Your task to perform on an android device: Go to network settings Image 0: 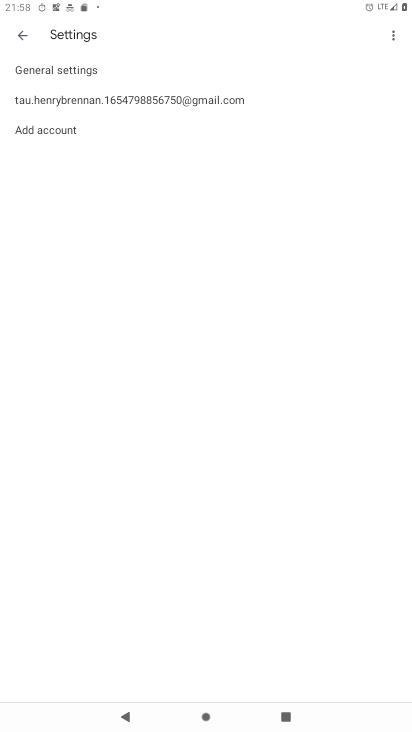
Step 0: click (17, 35)
Your task to perform on an android device: Go to network settings Image 1: 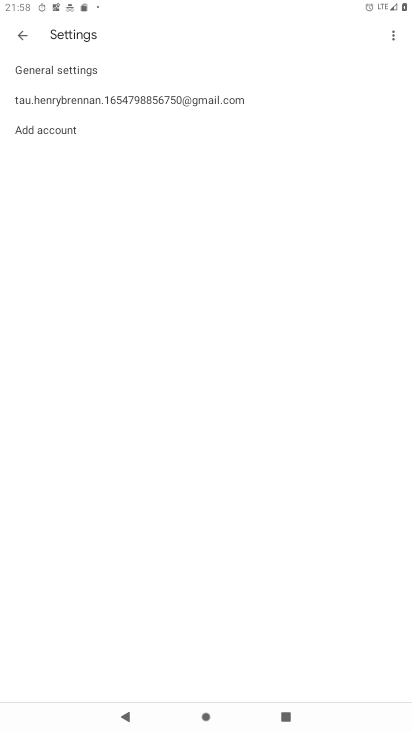
Step 1: click (16, 35)
Your task to perform on an android device: Go to network settings Image 2: 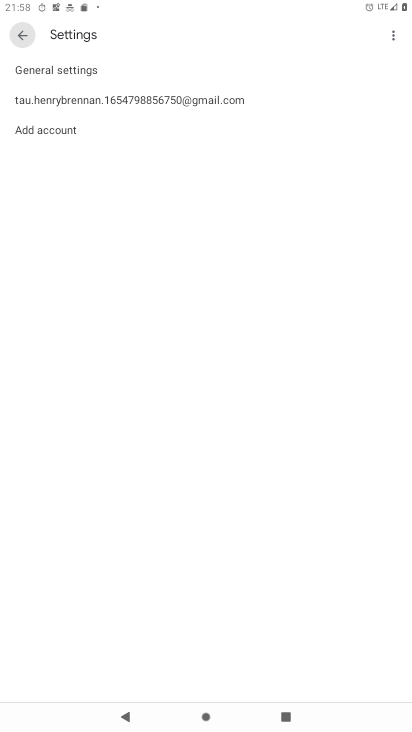
Step 2: click (17, 35)
Your task to perform on an android device: Go to network settings Image 3: 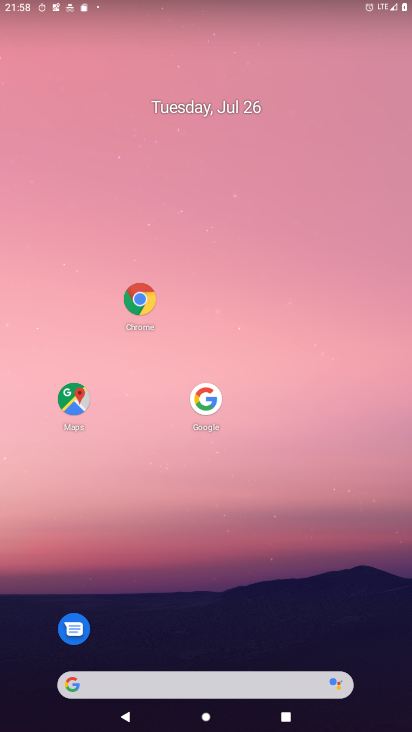
Step 3: click (152, 73)
Your task to perform on an android device: Go to network settings Image 4: 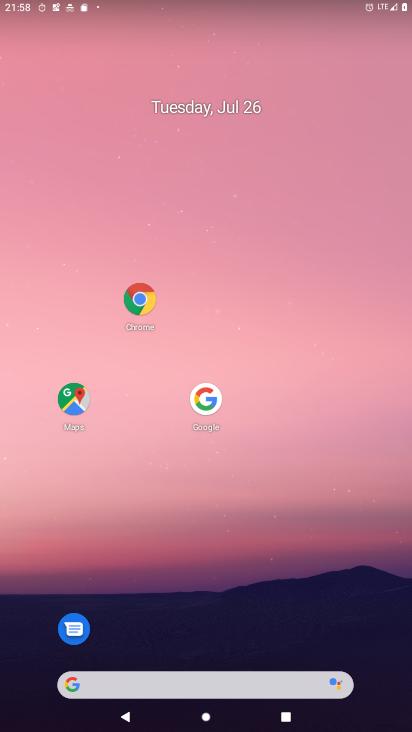
Step 4: drag from (209, 437) to (249, 58)
Your task to perform on an android device: Go to network settings Image 5: 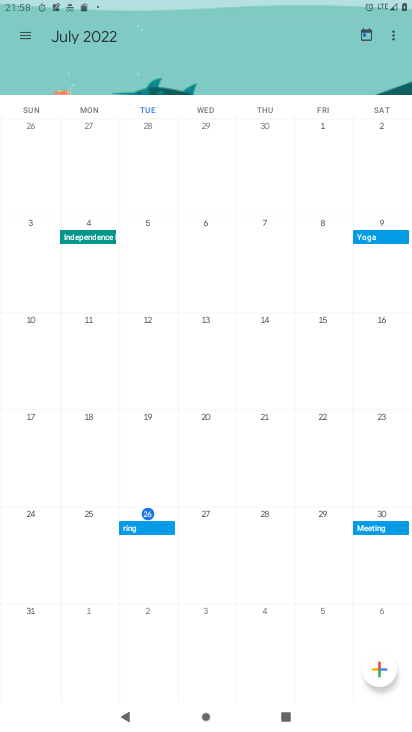
Step 5: click (261, 108)
Your task to perform on an android device: Go to network settings Image 6: 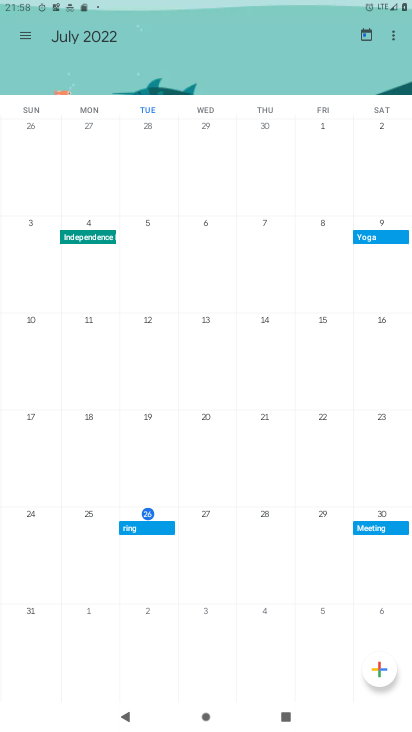
Step 6: press back button
Your task to perform on an android device: Go to network settings Image 7: 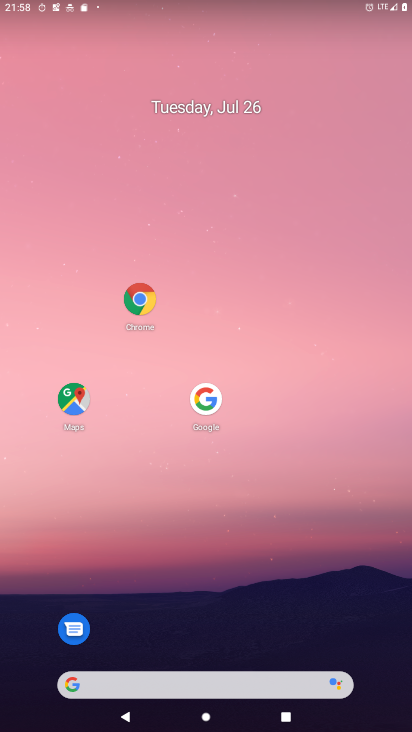
Step 7: drag from (215, 596) to (205, 261)
Your task to perform on an android device: Go to network settings Image 8: 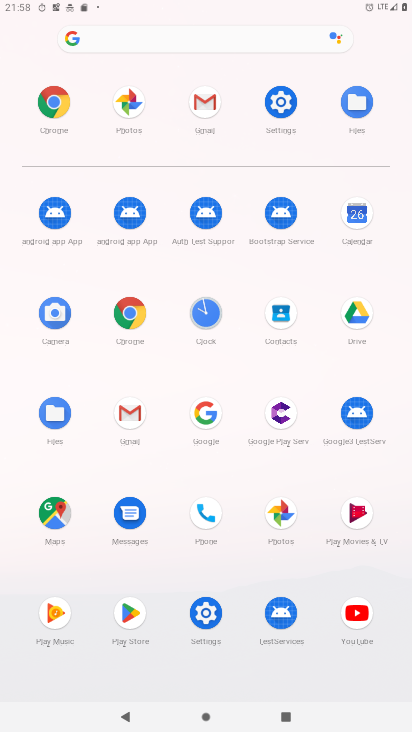
Step 8: click (145, 187)
Your task to perform on an android device: Go to network settings Image 9: 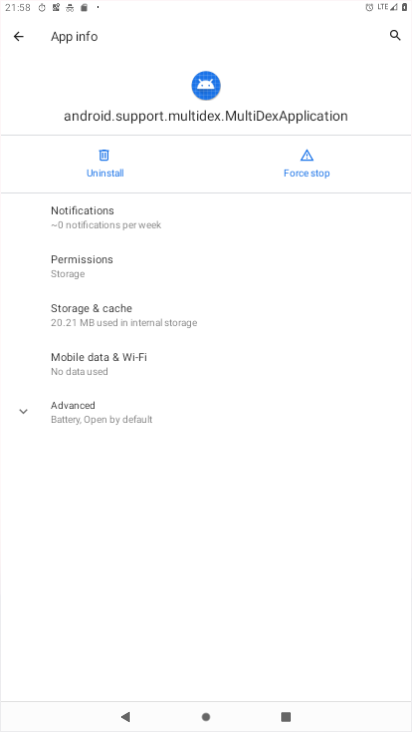
Step 9: click (198, 618)
Your task to perform on an android device: Go to network settings Image 10: 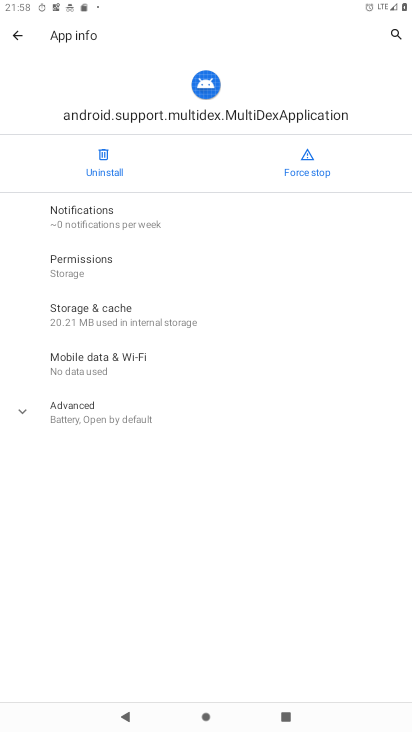
Step 10: click (198, 618)
Your task to perform on an android device: Go to network settings Image 11: 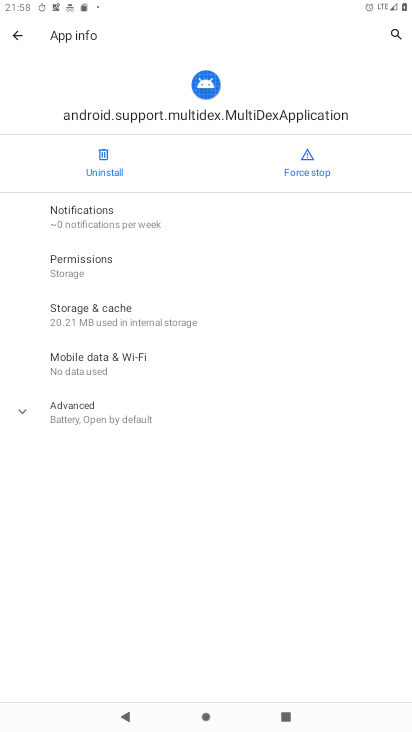
Step 11: click (205, 611)
Your task to perform on an android device: Go to network settings Image 12: 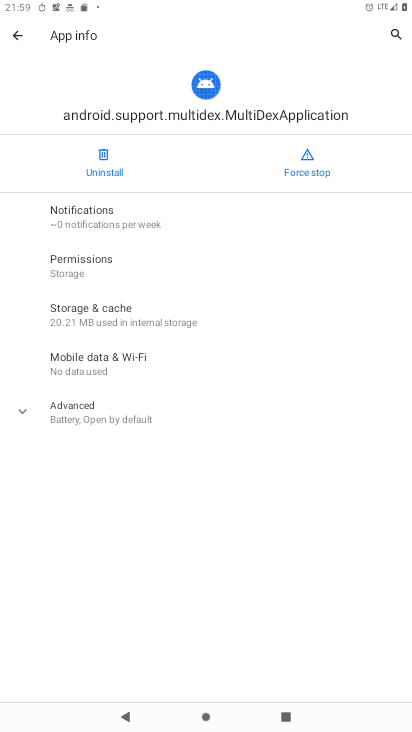
Step 12: click (81, 222)
Your task to perform on an android device: Go to network settings Image 13: 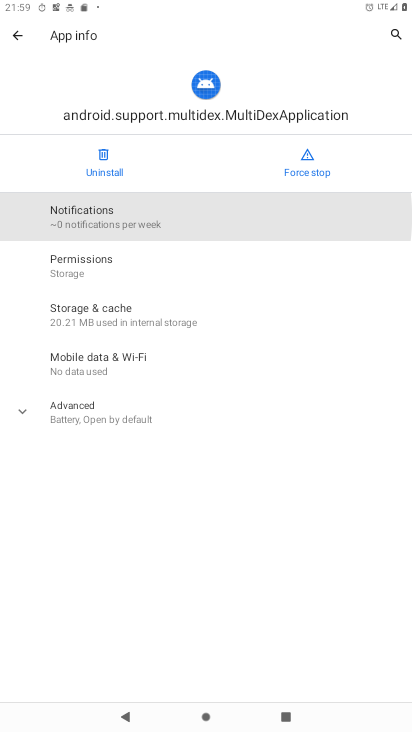
Step 13: click (84, 219)
Your task to perform on an android device: Go to network settings Image 14: 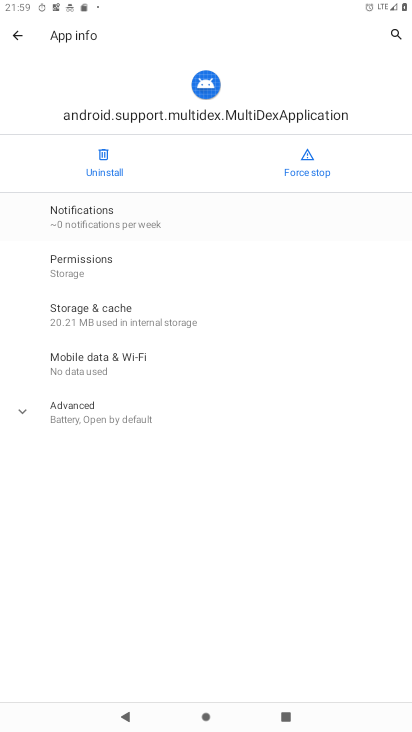
Step 14: click (90, 217)
Your task to perform on an android device: Go to network settings Image 15: 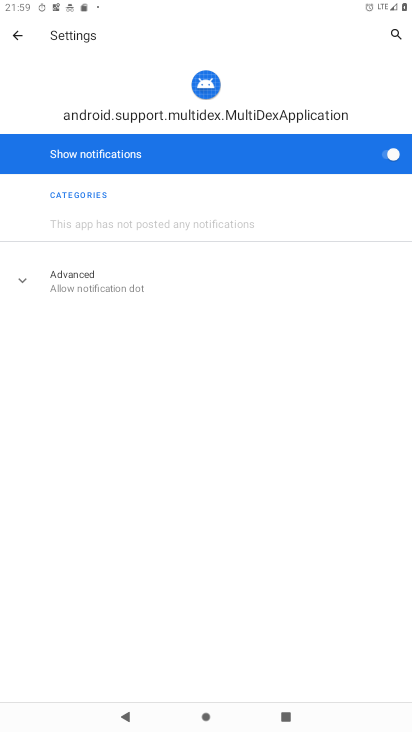
Step 15: click (11, 35)
Your task to perform on an android device: Go to network settings Image 16: 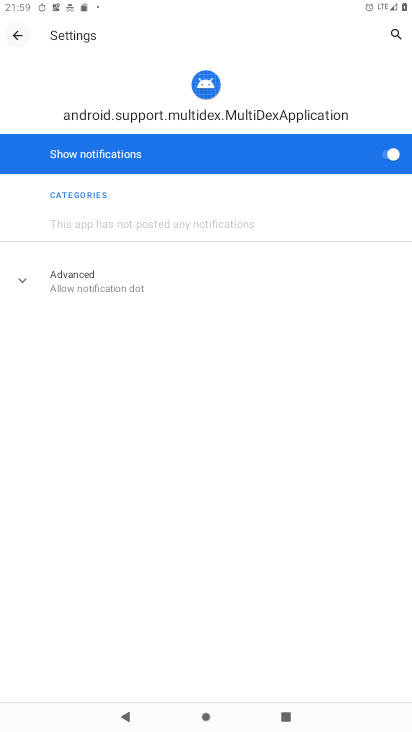
Step 16: click (11, 34)
Your task to perform on an android device: Go to network settings Image 17: 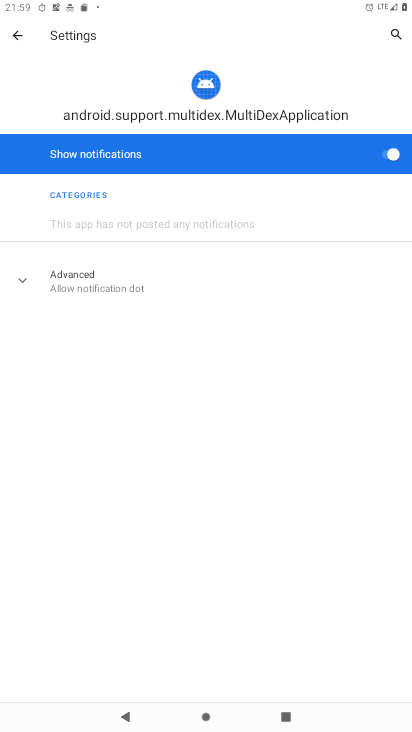
Step 17: click (13, 32)
Your task to perform on an android device: Go to network settings Image 18: 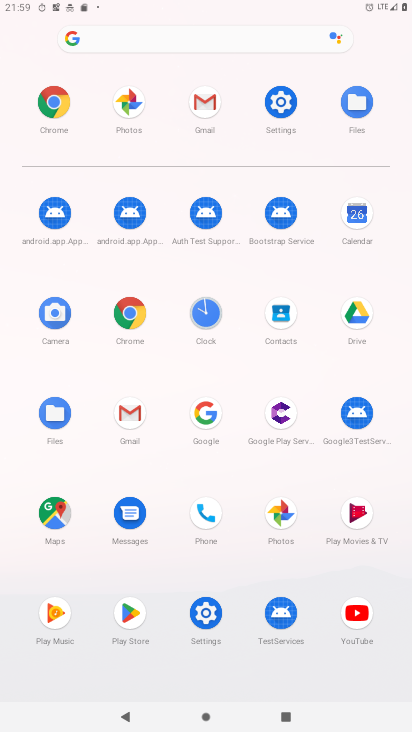
Step 18: click (274, 104)
Your task to perform on an android device: Go to network settings Image 19: 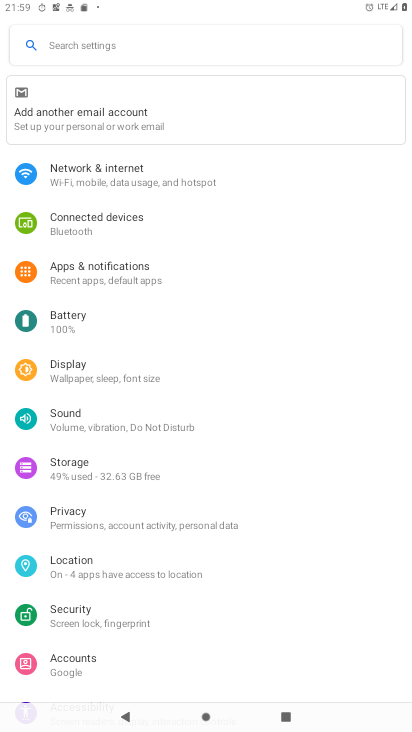
Step 19: click (93, 178)
Your task to perform on an android device: Go to network settings Image 20: 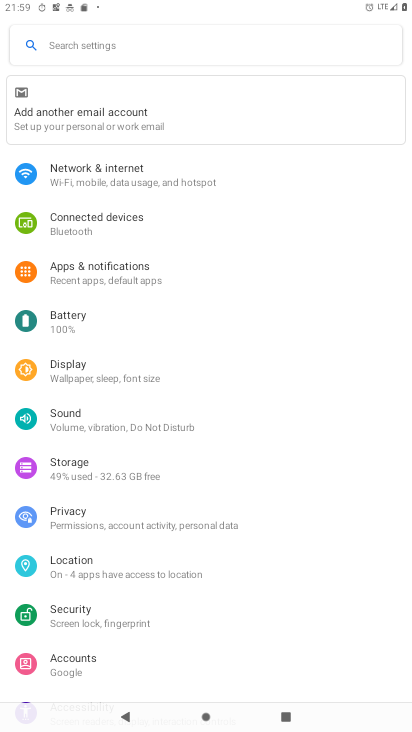
Step 20: click (94, 178)
Your task to perform on an android device: Go to network settings Image 21: 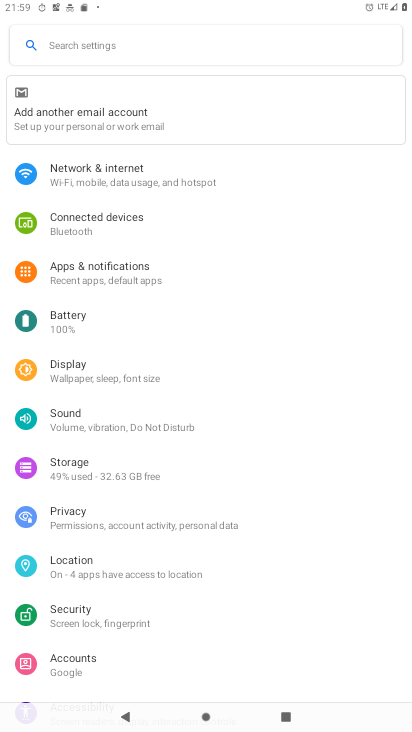
Step 21: click (96, 178)
Your task to perform on an android device: Go to network settings Image 22: 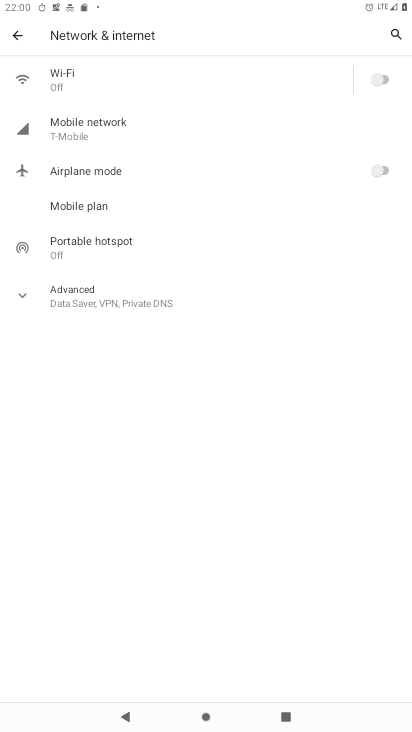
Step 22: click (376, 74)
Your task to perform on an android device: Go to network settings Image 23: 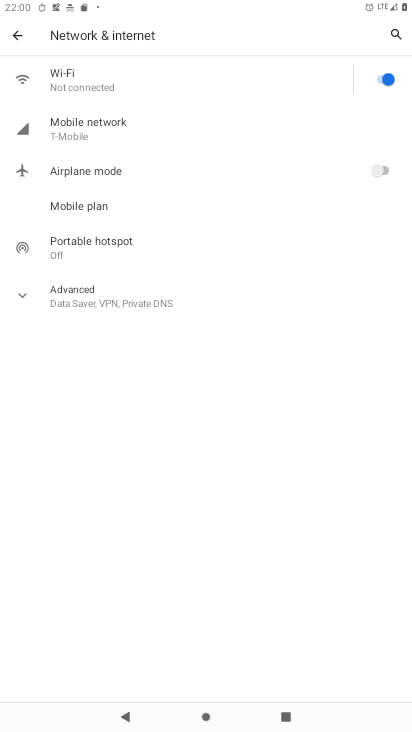
Step 23: task complete